Your task to perform on an android device: Search for sushi restaurants on Maps Image 0: 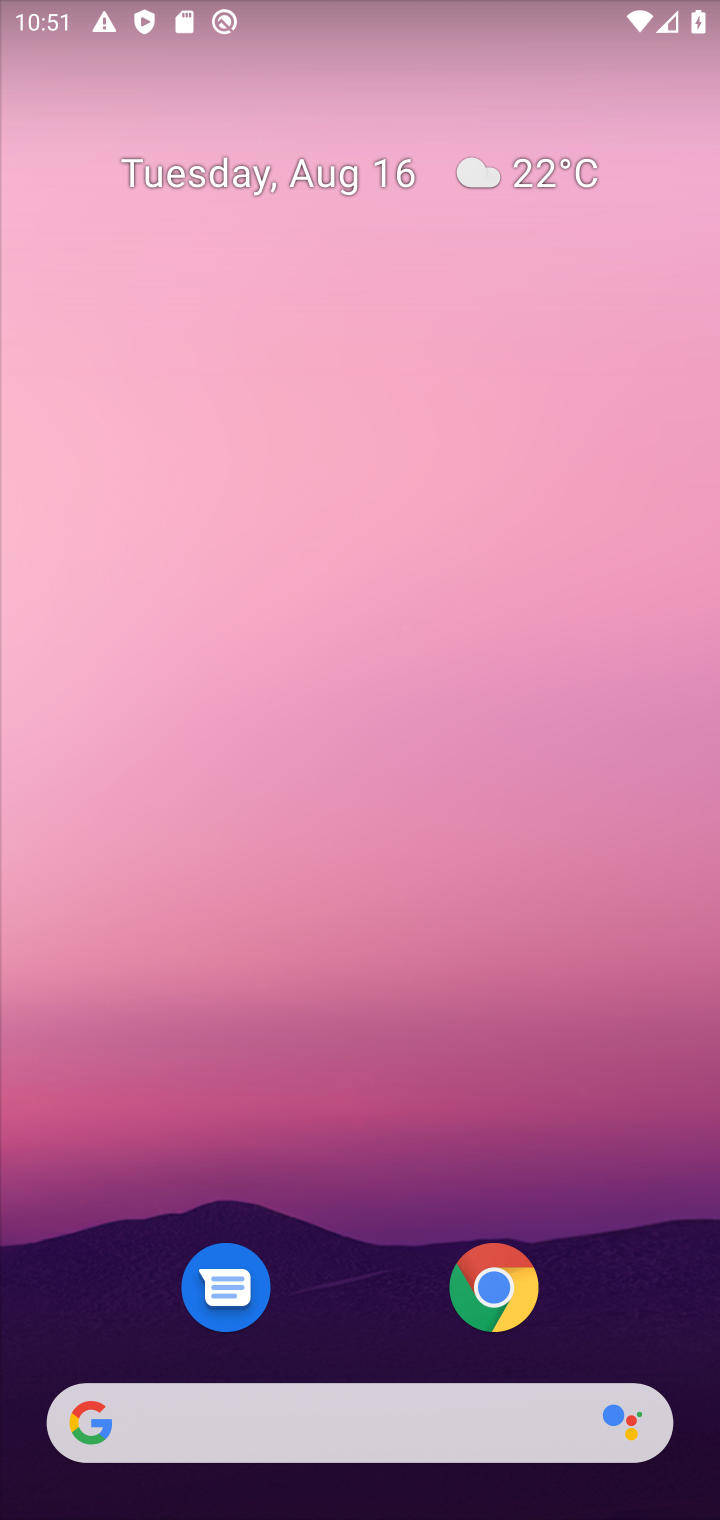
Step 0: drag from (645, 1334) to (568, 326)
Your task to perform on an android device: Search for sushi restaurants on Maps Image 1: 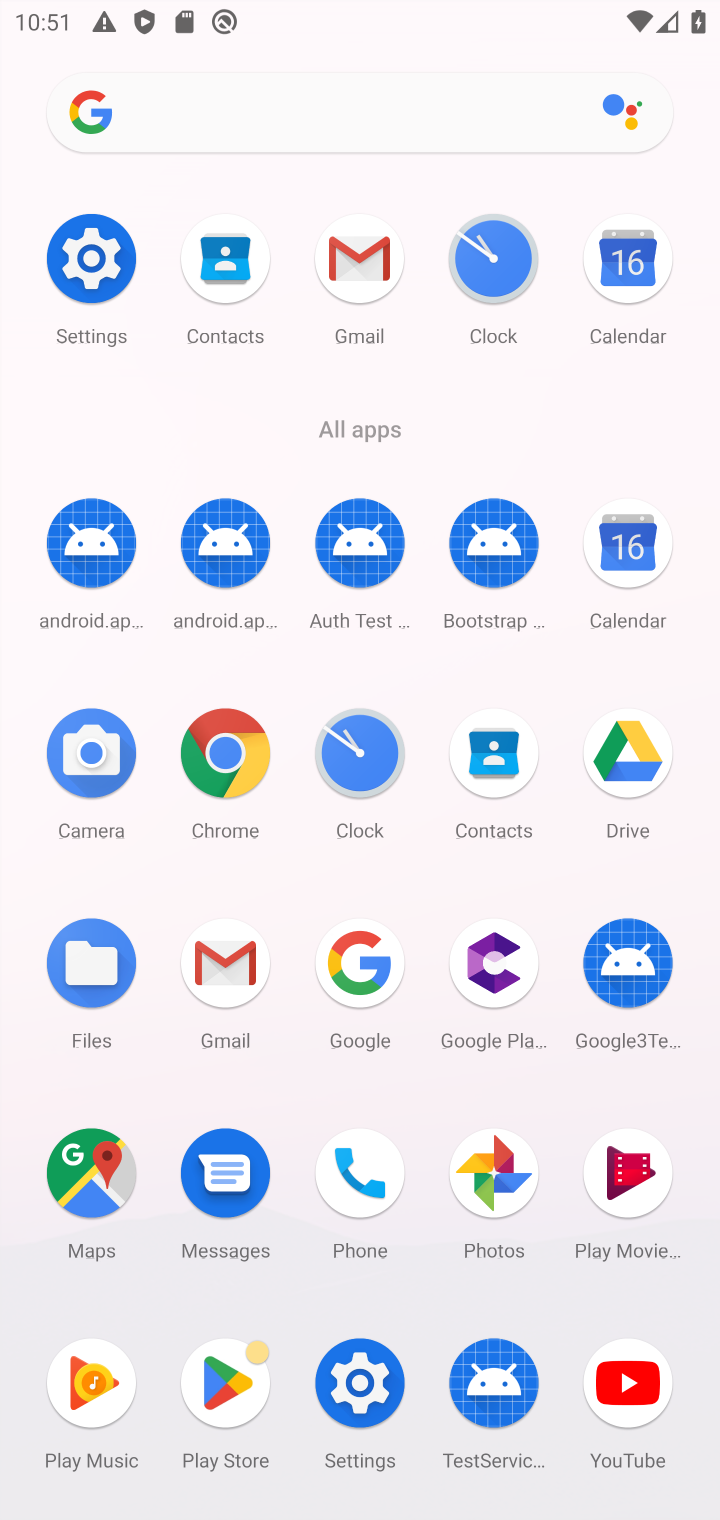
Step 1: click (92, 1174)
Your task to perform on an android device: Search for sushi restaurants on Maps Image 2: 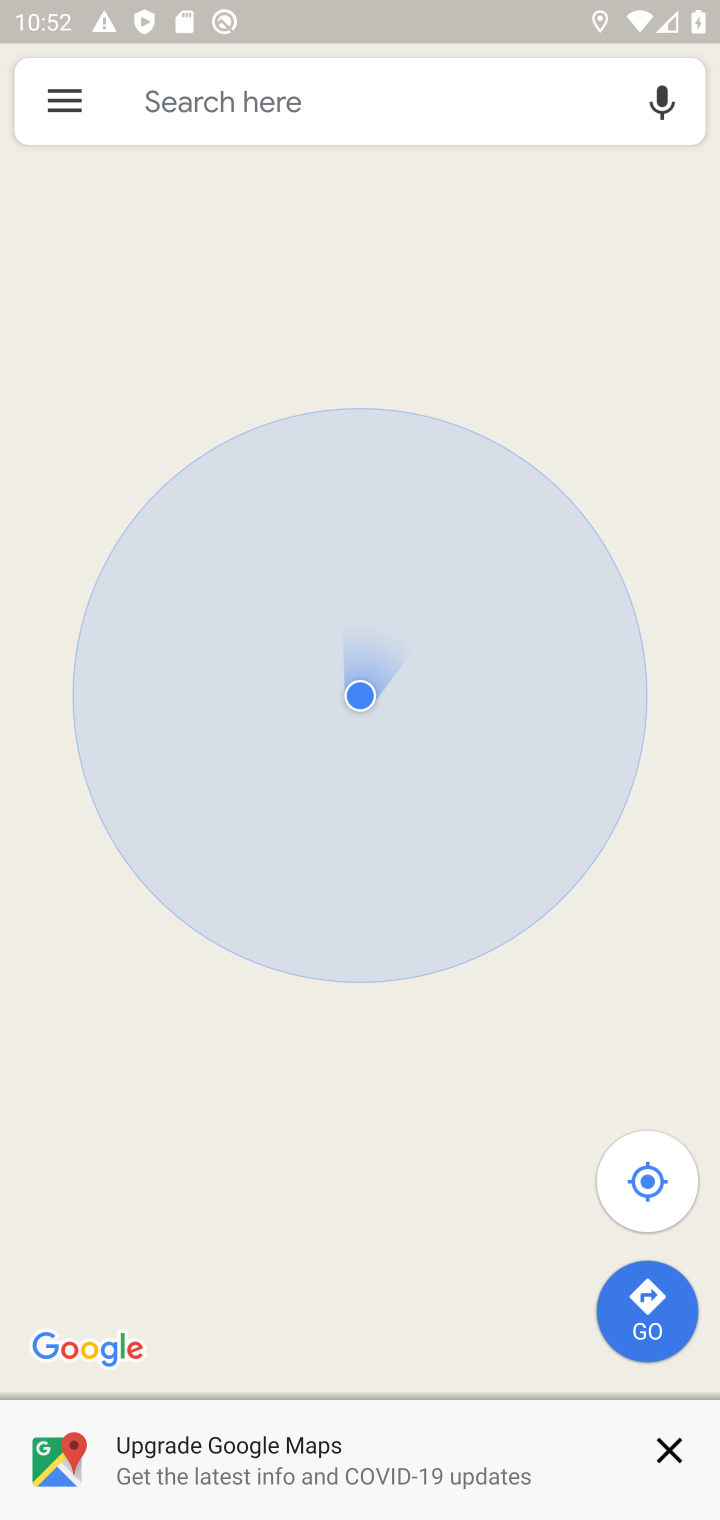
Step 2: click (237, 96)
Your task to perform on an android device: Search for sushi restaurants on Maps Image 3: 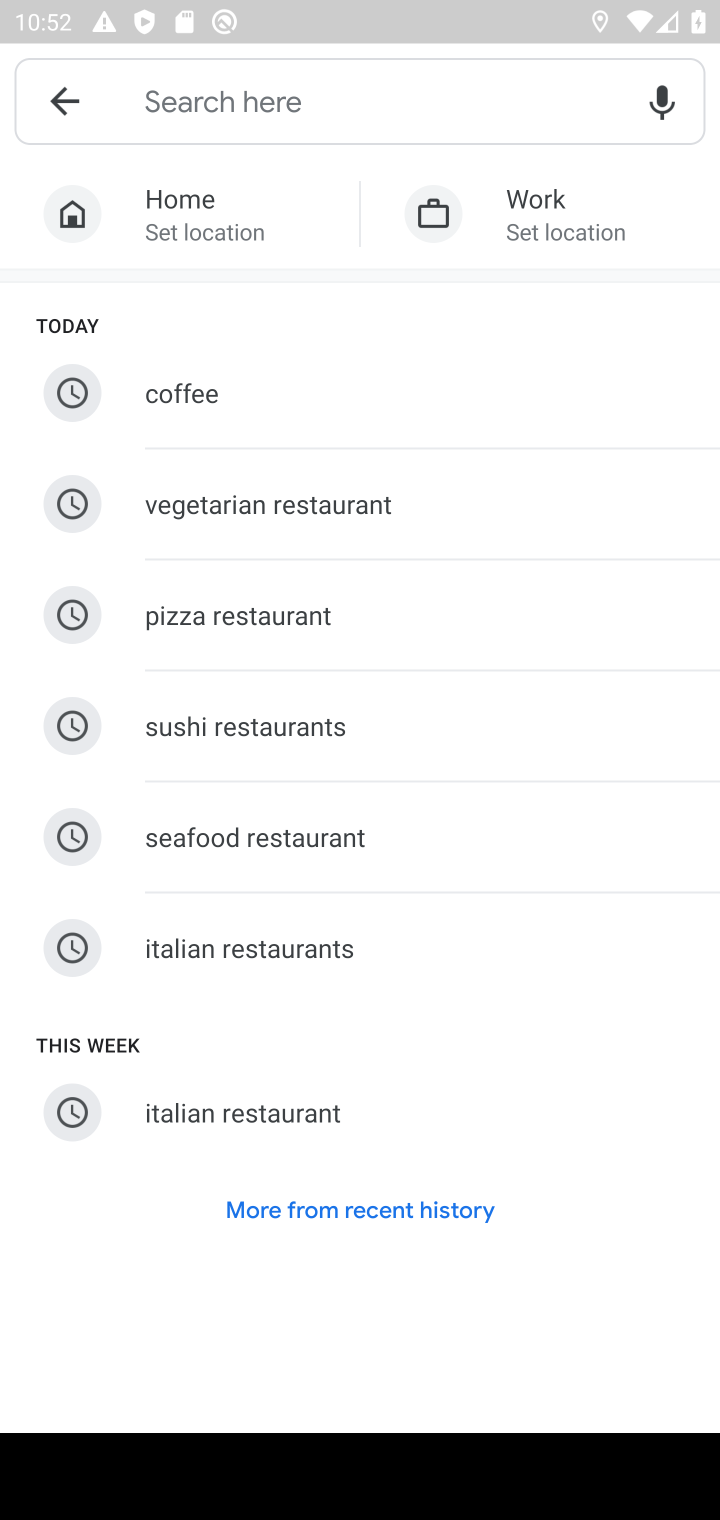
Step 3: type "sushi restaurants"
Your task to perform on an android device: Search for sushi restaurants on Maps Image 4: 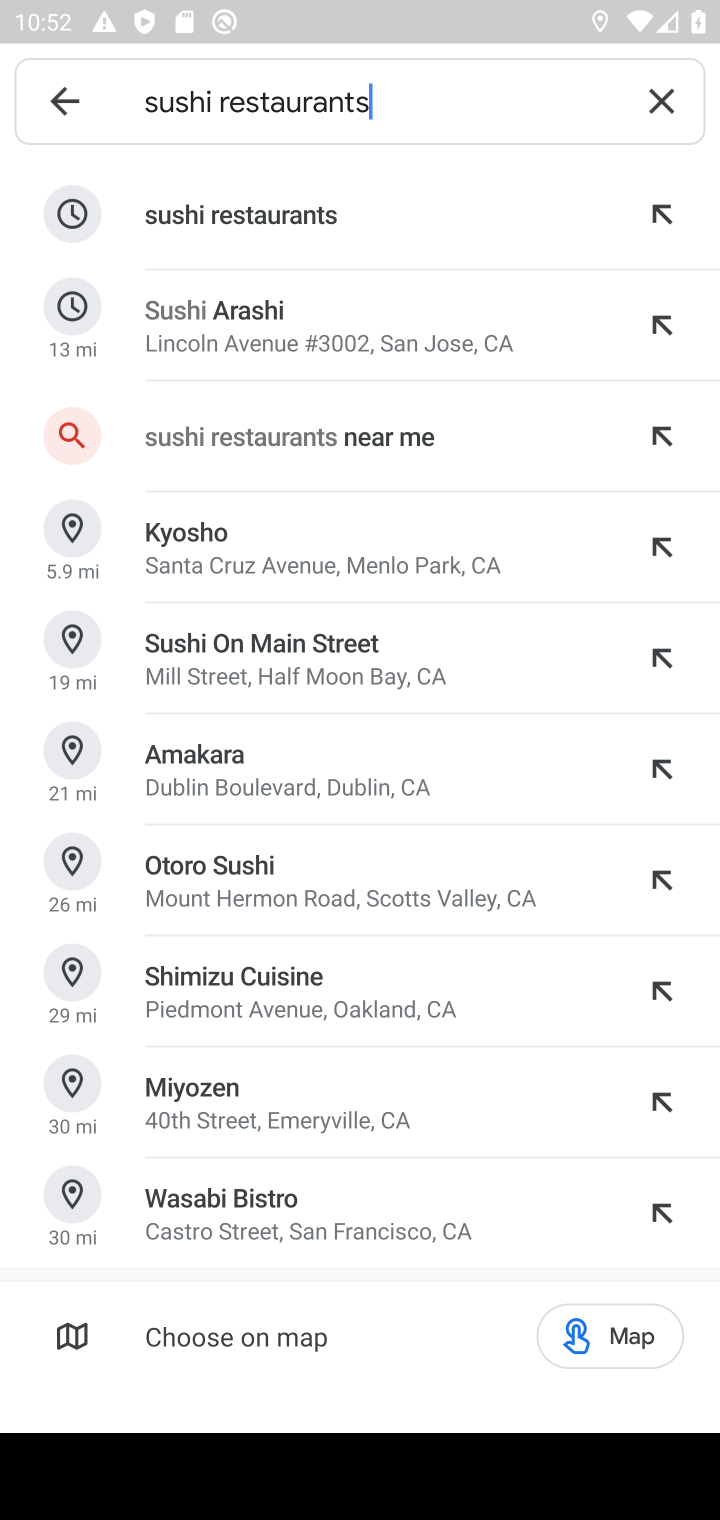
Step 4: click (252, 209)
Your task to perform on an android device: Search for sushi restaurants on Maps Image 5: 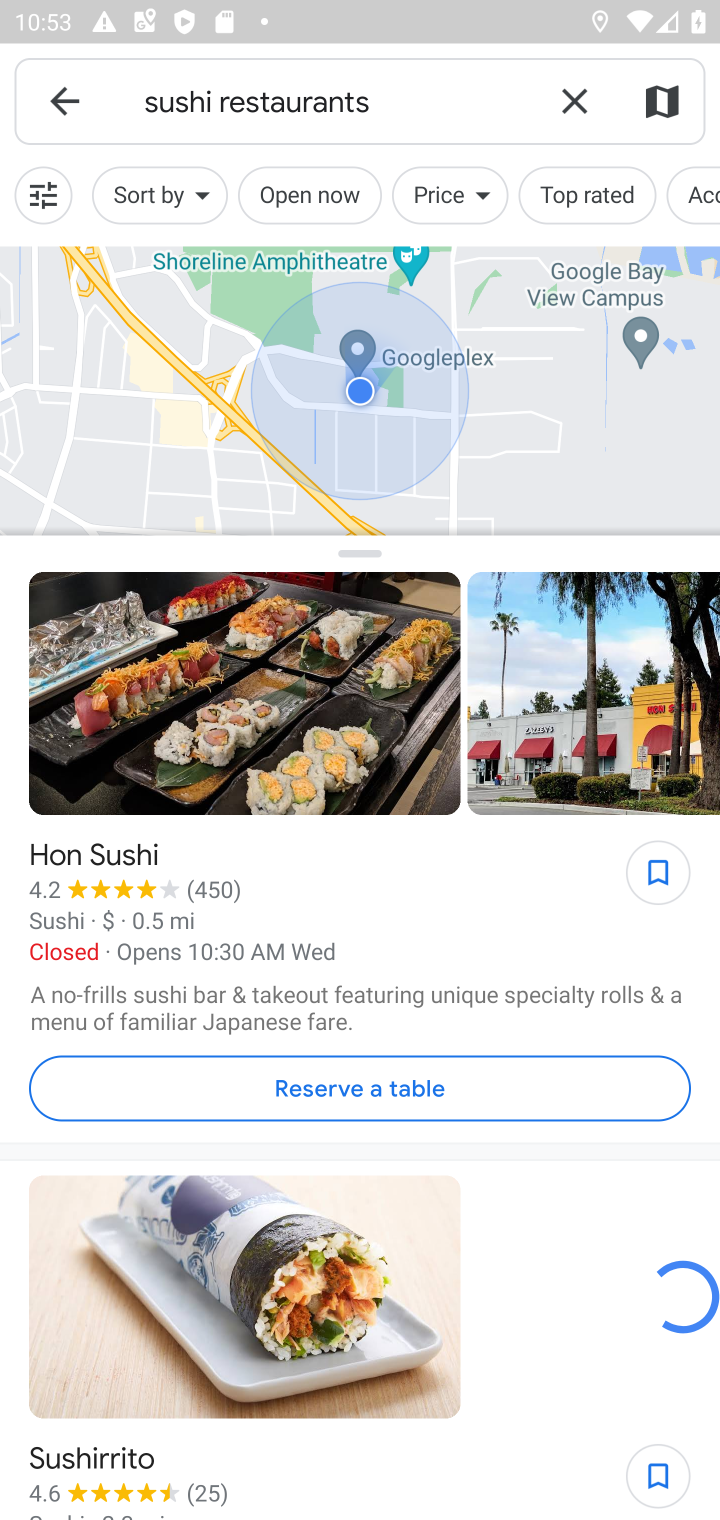
Step 5: click (422, 292)
Your task to perform on an android device: Search for sushi restaurants on Maps Image 6: 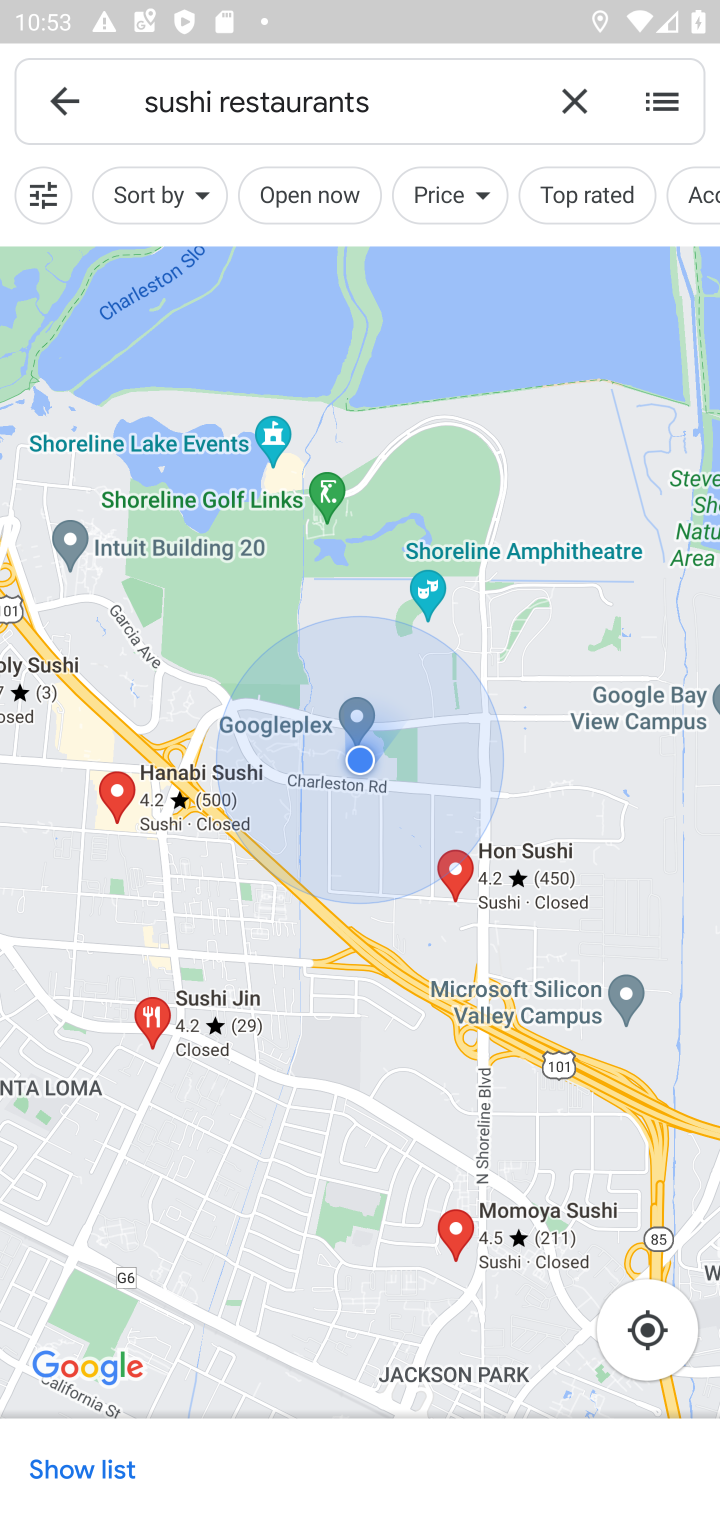
Step 6: click (79, 1466)
Your task to perform on an android device: Search for sushi restaurants on Maps Image 7: 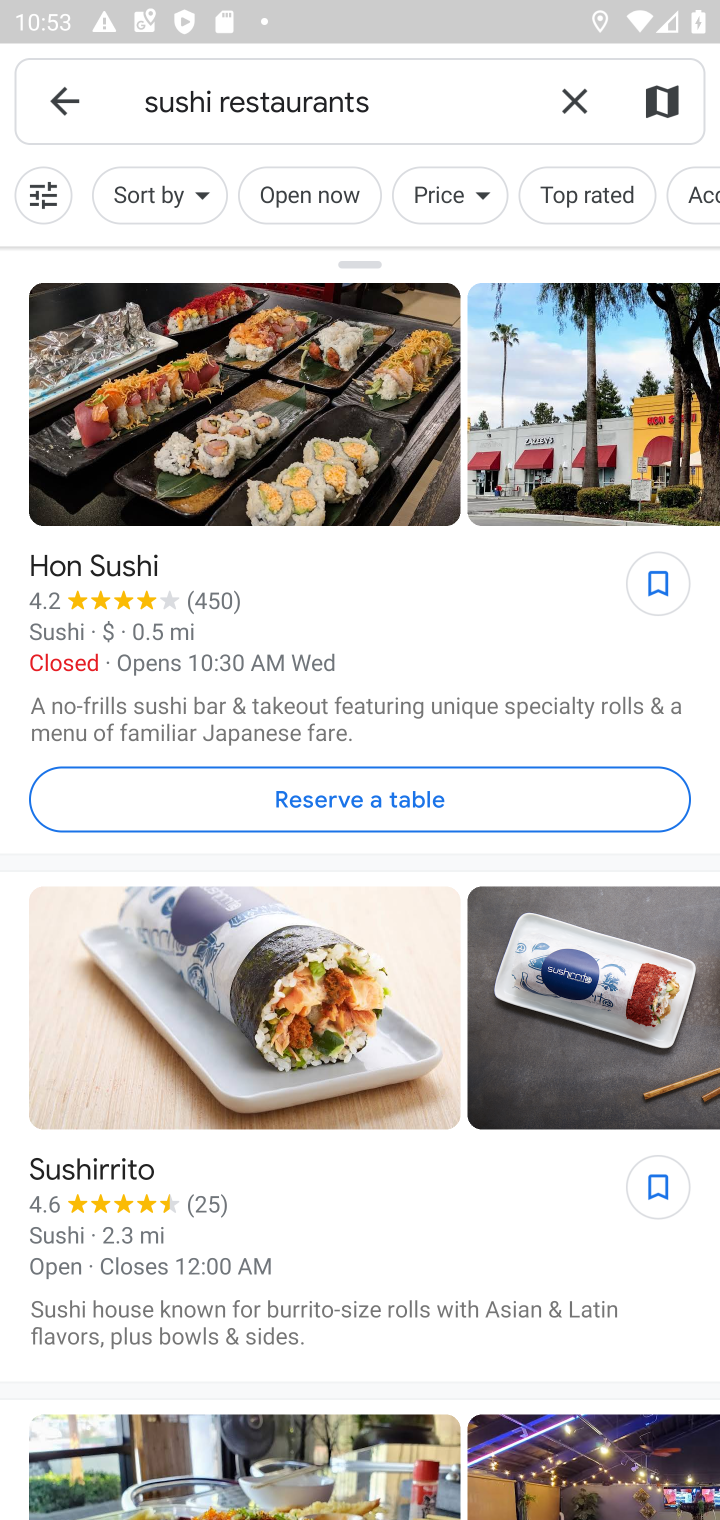
Step 7: task complete